Your task to perform on an android device: Turn on the flashlight Image 0: 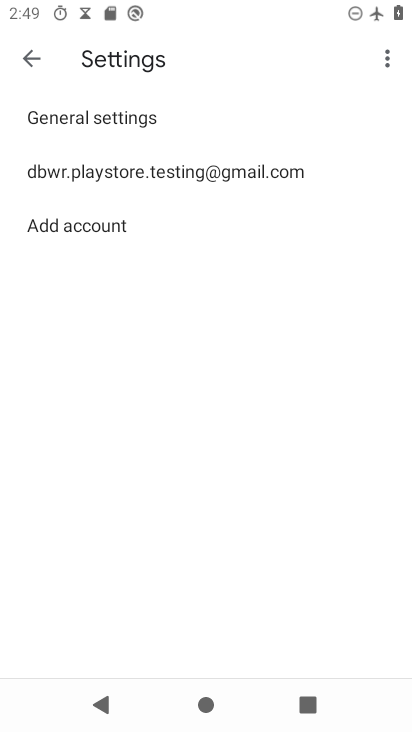
Step 0: press home button
Your task to perform on an android device: Turn on the flashlight Image 1: 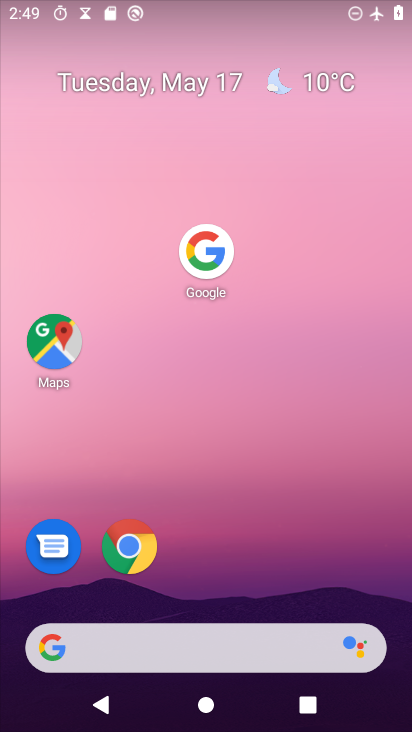
Step 1: task complete